Your task to perform on an android device: Search for a coffee table on IKEA Image 0: 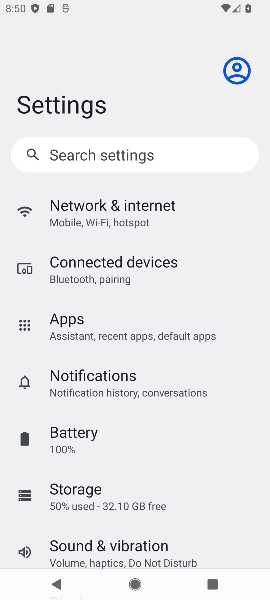
Step 0: press home button
Your task to perform on an android device: Search for a coffee table on IKEA Image 1: 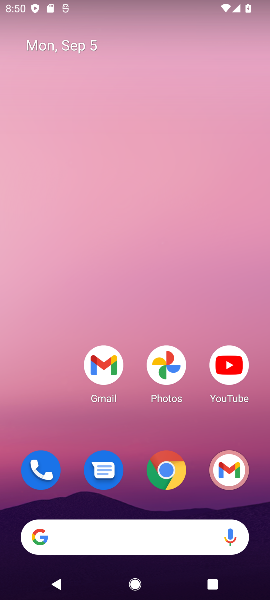
Step 1: click (122, 535)
Your task to perform on an android device: Search for a coffee table on IKEA Image 2: 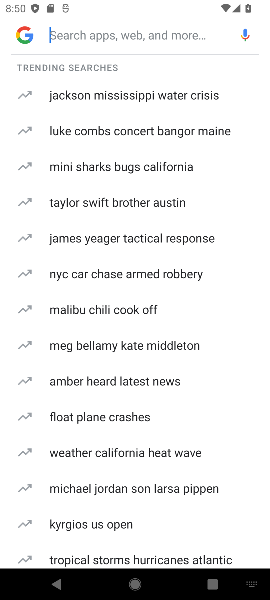
Step 2: type "ikea"
Your task to perform on an android device: Search for a coffee table on IKEA Image 3: 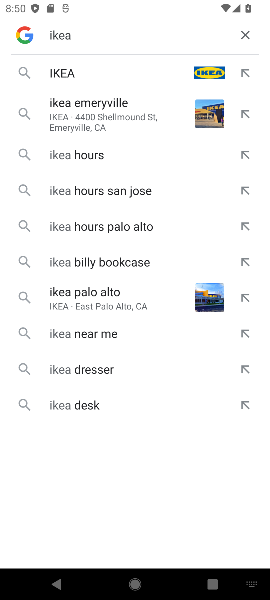
Step 3: click (68, 67)
Your task to perform on an android device: Search for a coffee table on IKEA Image 4: 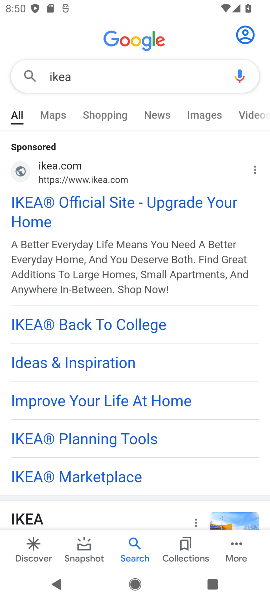
Step 4: click (92, 198)
Your task to perform on an android device: Search for a coffee table on IKEA Image 5: 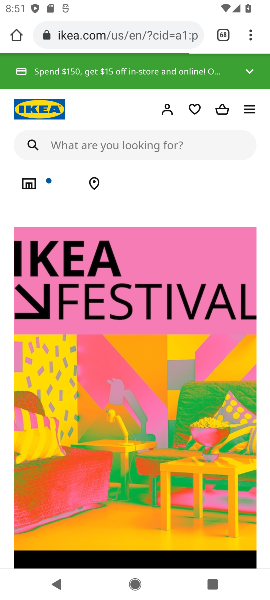
Step 5: click (126, 144)
Your task to perform on an android device: Search for a coffee table on IKEA Image 6: 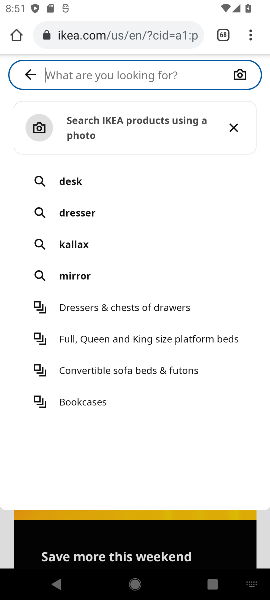
Step 6: type "coffe table"
Your task to perform on an android device: Search for a coffee table on IKEA Image 7: 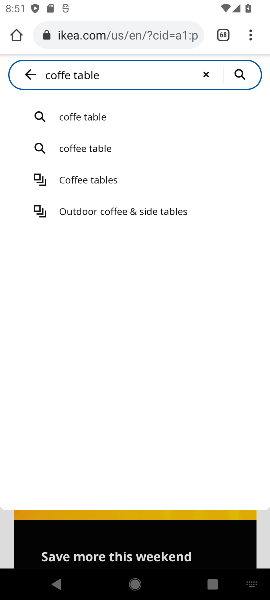
Step 7: click (238, 70)
Your task to perform on an android device: Search for a coffee table on IKEA Image 8: 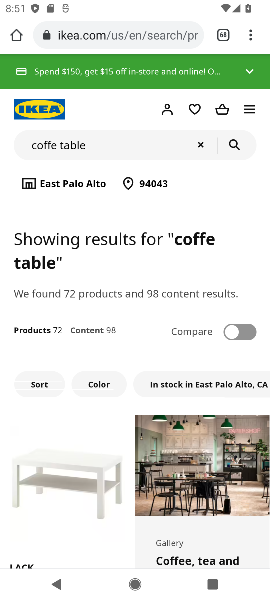
Step 8: task complete